Your task to perform on an android device: Open display settings Image 0: 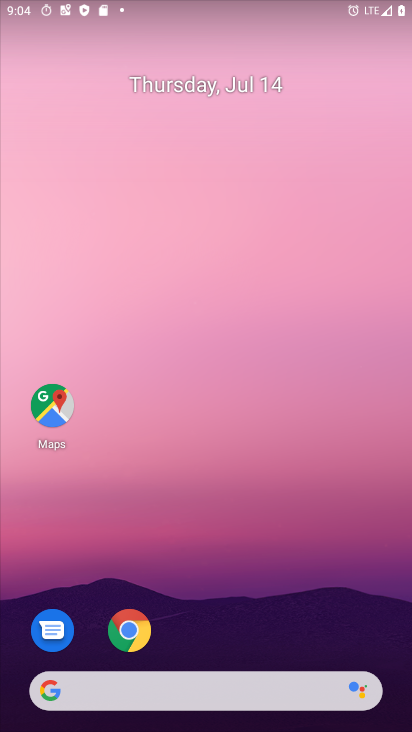
Step 0: drag from (212, 728) to (219, 80)
Your task to perform on an android device: Open display settings Image 1: 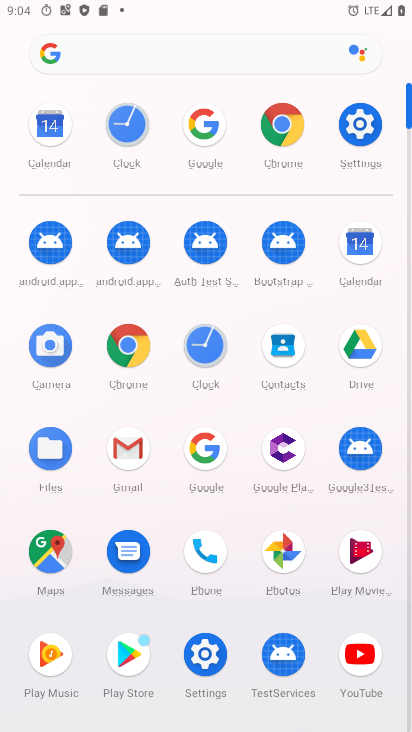
Step 1: click (353, 134)
Your task to perform on an android device: Open display settings Image 2: 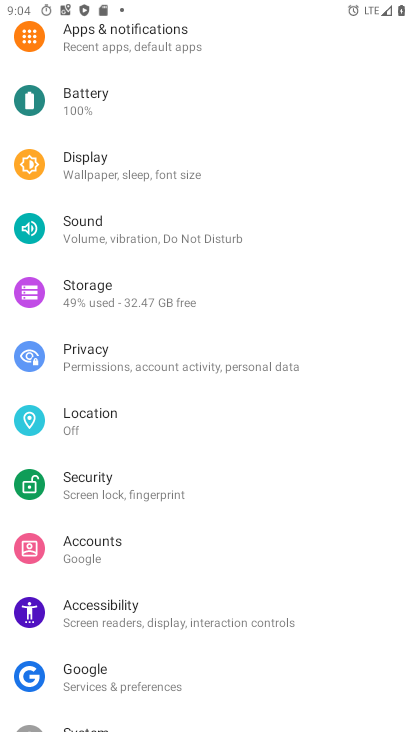
Step 2: click (89, 174)
Your task to perform on an android device: Open display settings Image 3: 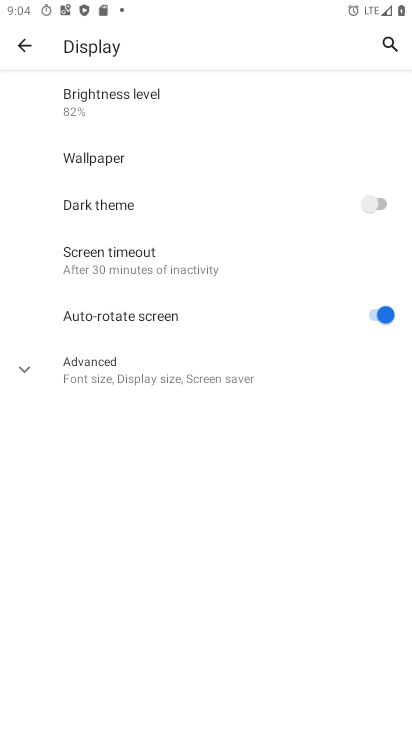
Step 3: task complete